Your task to perform on an android device: toggle notification dots Image 0: 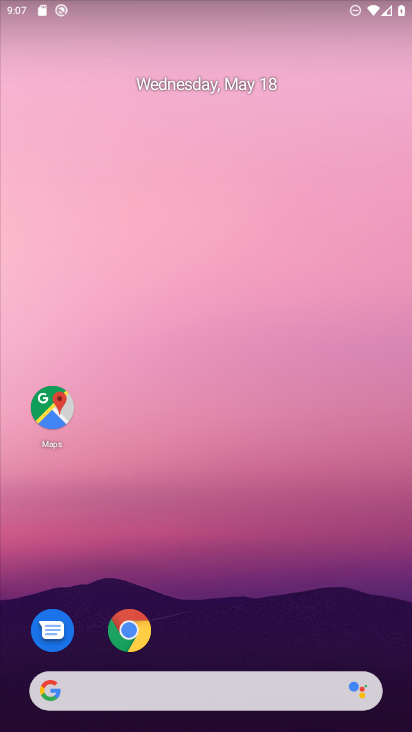
Step 0: drag from (219, 656) to (167, 94)
Your task to perform on an android device: toggle notification dots Image 1: 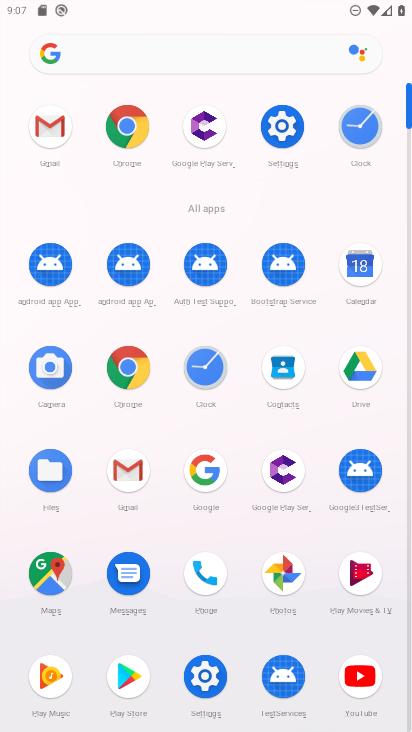
Step 1: click (281, 136)
Your task to perform on an android device: toggle notification dots Image 2: 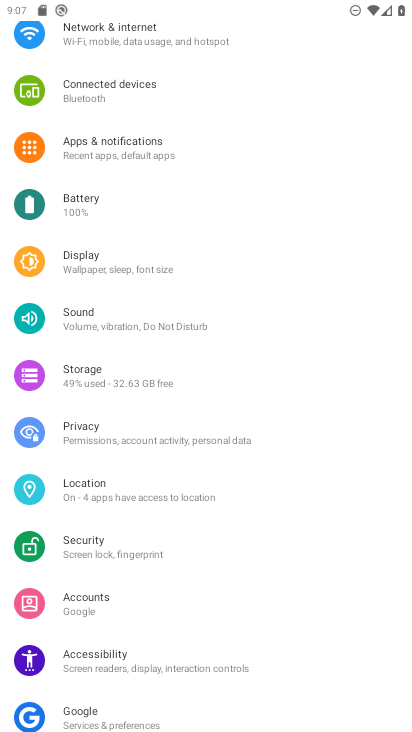
Step 2: click (109, 160)
Your task to perform on an android device: toggle notification dots Image 3: 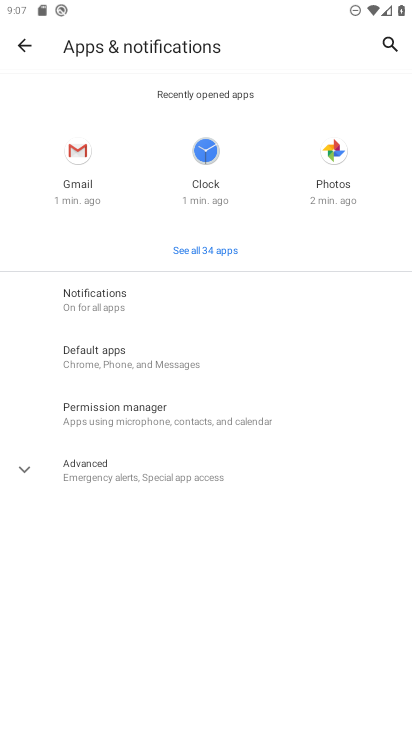
Step 3: click (92, 312)
Your task to perform on an android device: toggle notification dots Image 4: 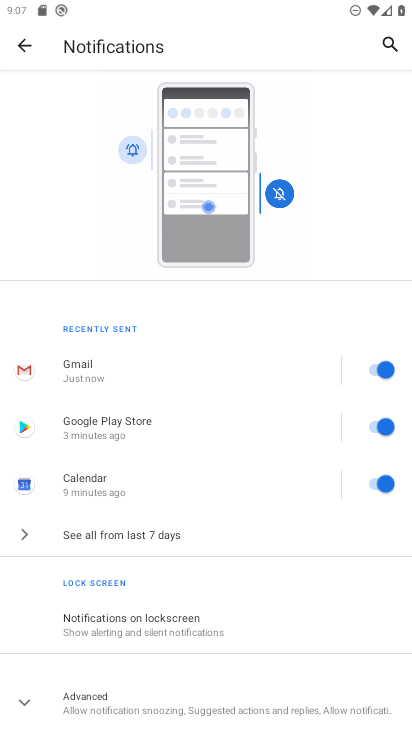
Step 4: drag from (297, 614) to (271, 252)
Your task to perform on an android device: toggle notification dots Image 5: 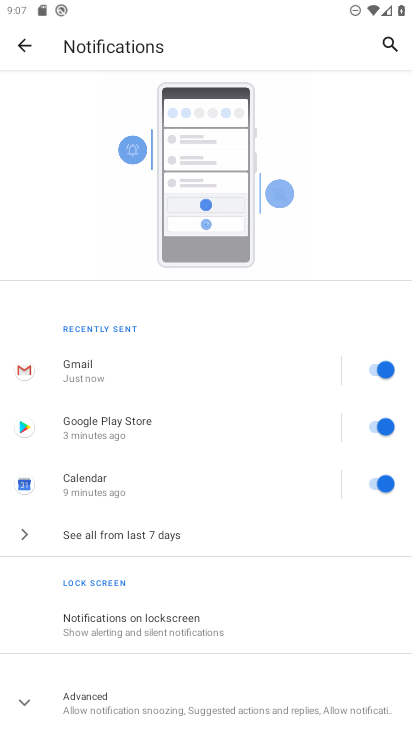
Step 5: click (170, 709)
Your task to perform on an android device: toggle notification dots Image 6: 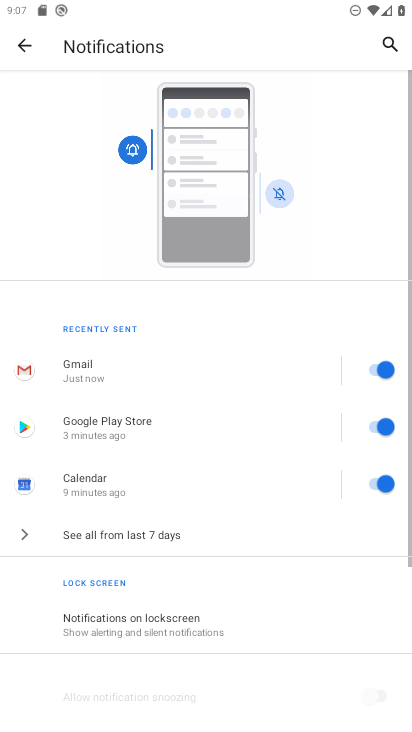
Step 6: drag from (170, 708) to (142, 223)
Your task to perform on an android device: toggle notification dots Image 7: 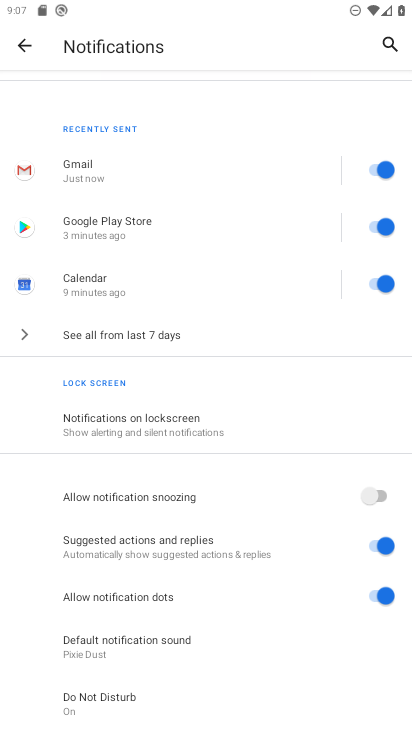
Step 7: click (380, 597)
Your task to perform on an android device: toggle notification dots Image 8: 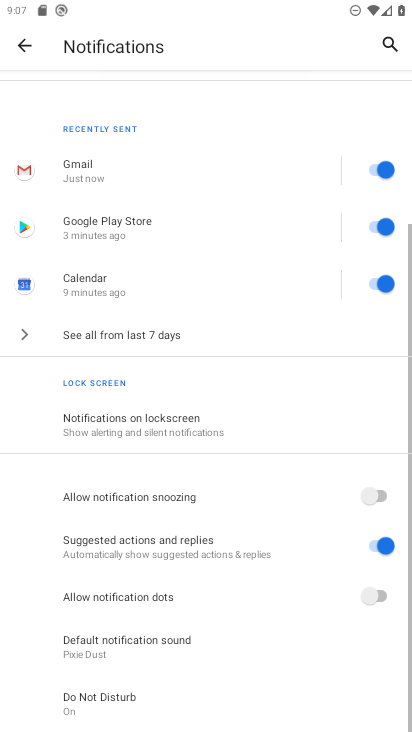
Step 8: task complete